Your task to perform on an android device: Search for "dell xps" on walmart, select the first entry, add it to the cart, then select checkout. Image 0: 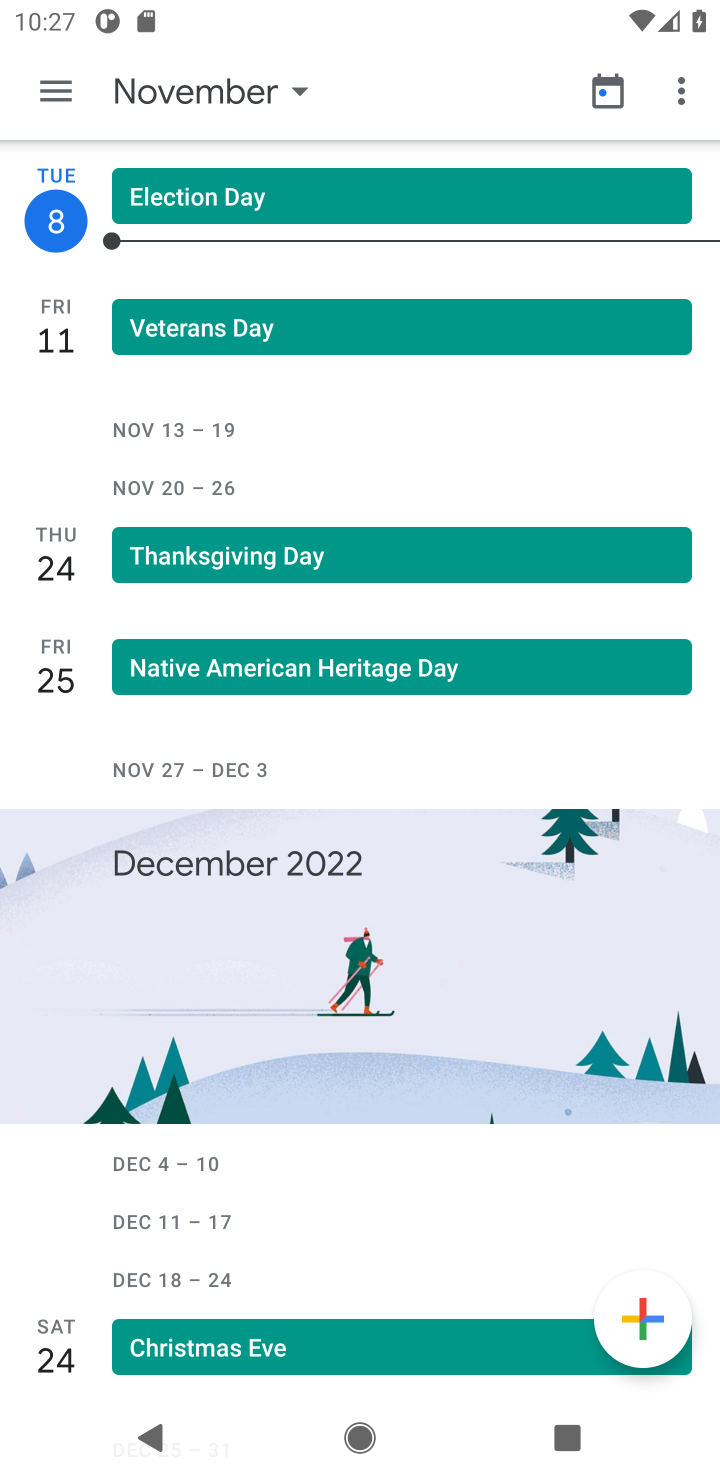
Step 0: press home button
Your task to perform on an android device: Search for "dell xps" on walmart, select the first entry, add it to the cart, then select checkout. Image 1: 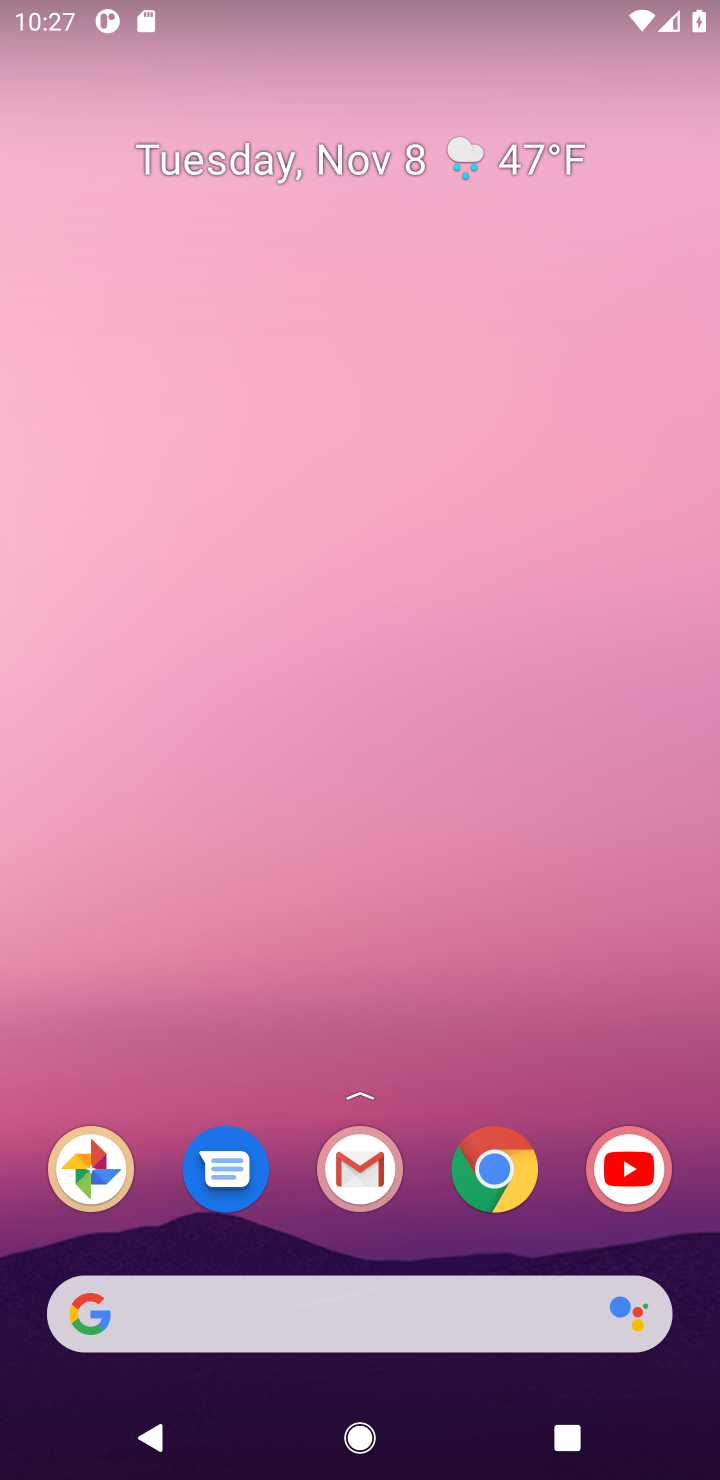
Step 1: click (502, 1172)
Your task to perform on an android device: Search for "dell xps" on walmart, select the first entry, add it to the cart, then select checkout. Image 2: 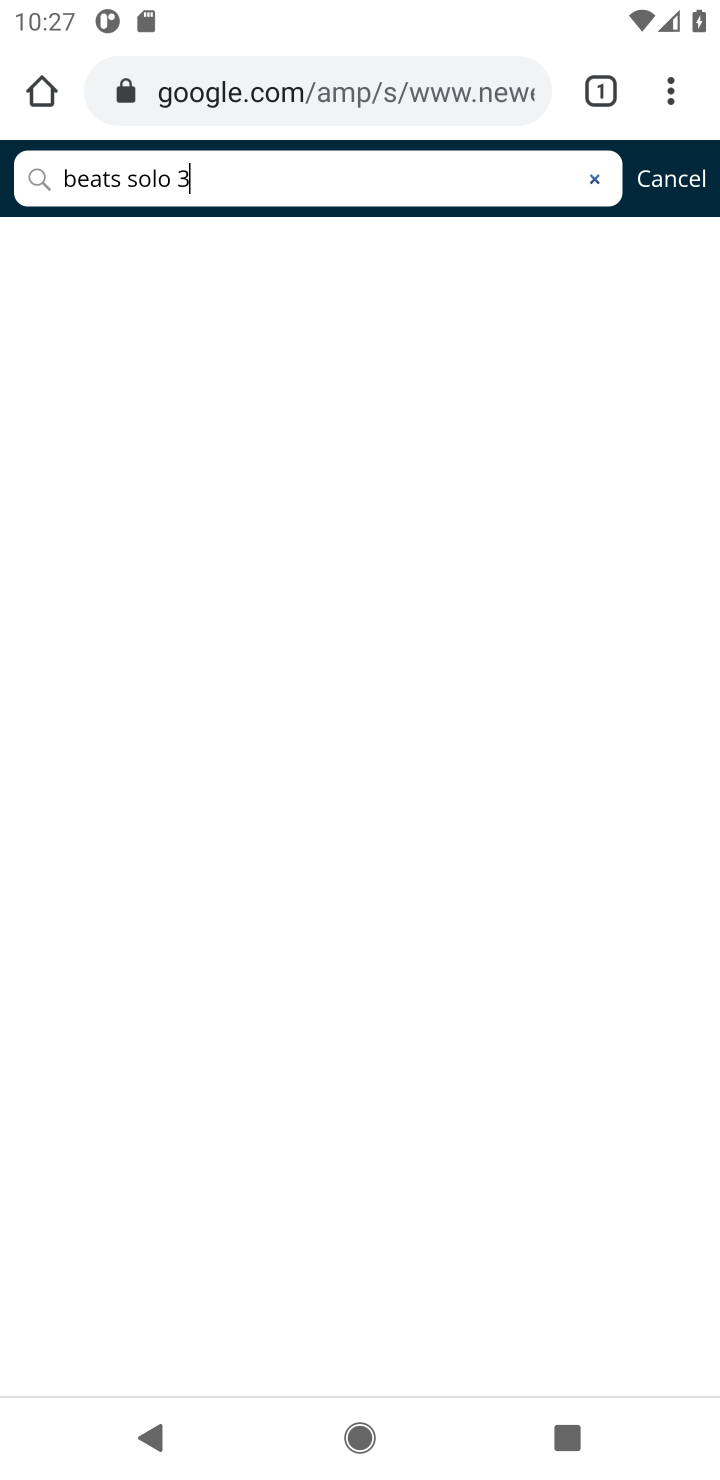
Step 2: click (388, 94)
Your task to perform on an android device: Search for "dell xps" on walmart, select the first entry, add it to the cart, then select checkout. Image 3: 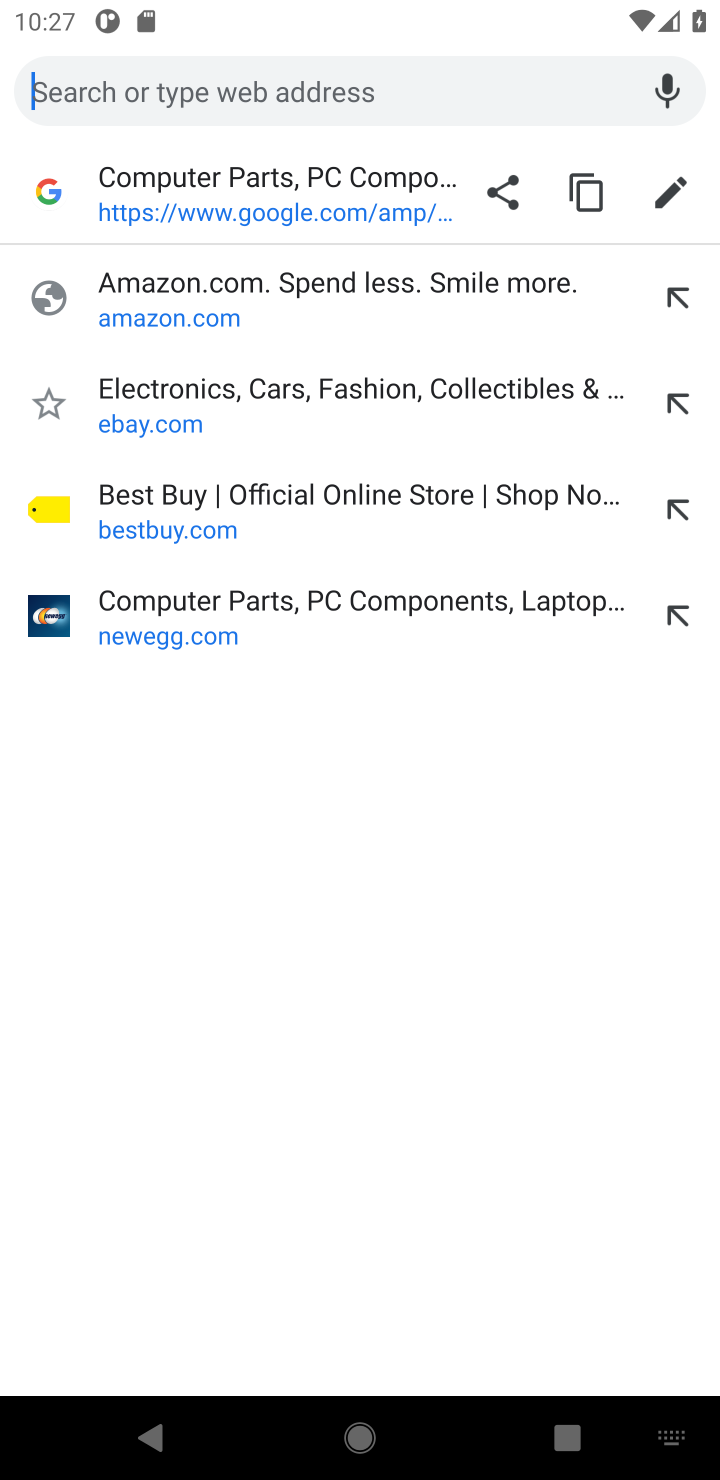
Step 3: type "walmart"
Your task to perform on an android device: Search for "dell xps" on walmart, select the first entry, add it to the cart, then select checkout. Image 4: 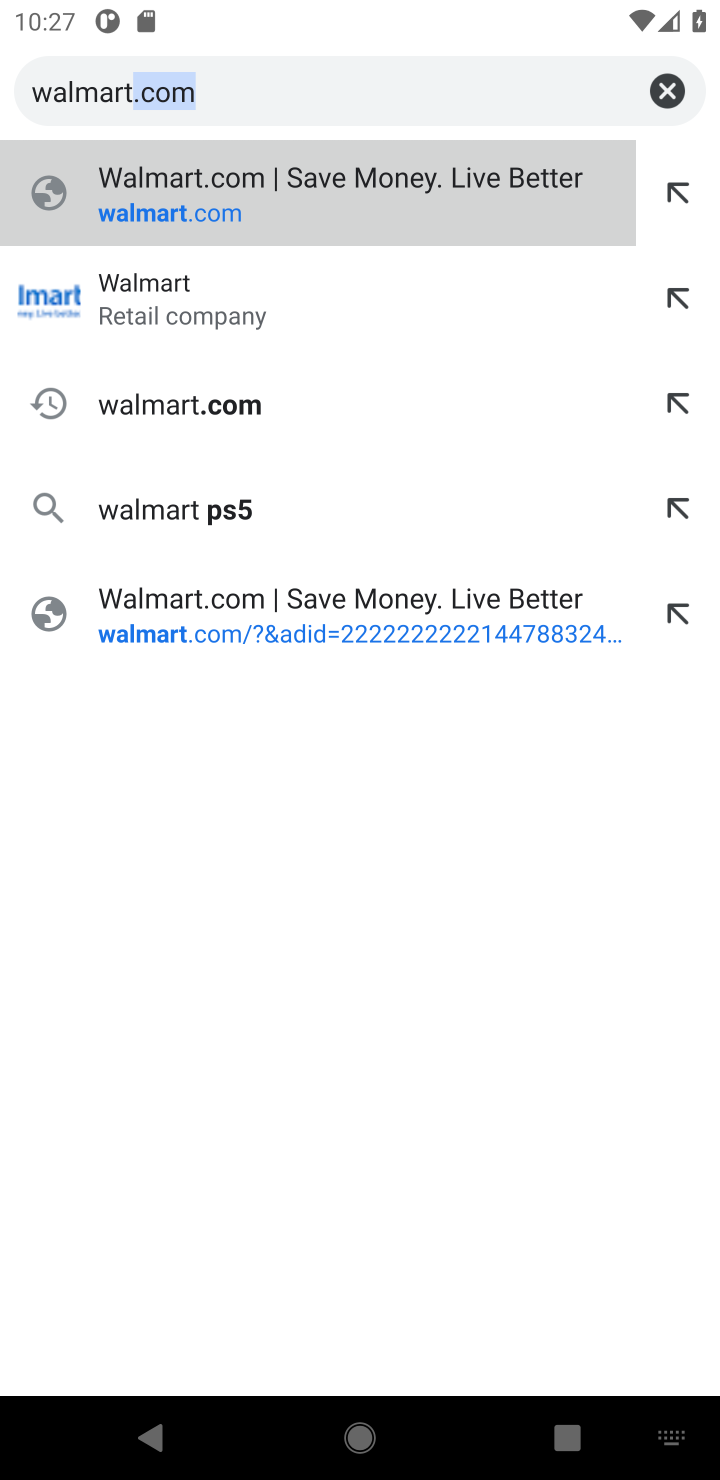
Step 4: press enter
Your task to perform on an android device: Search for "dell xps" on walmart, select the first entry, add it to the cart, then select checkout. Image 5: 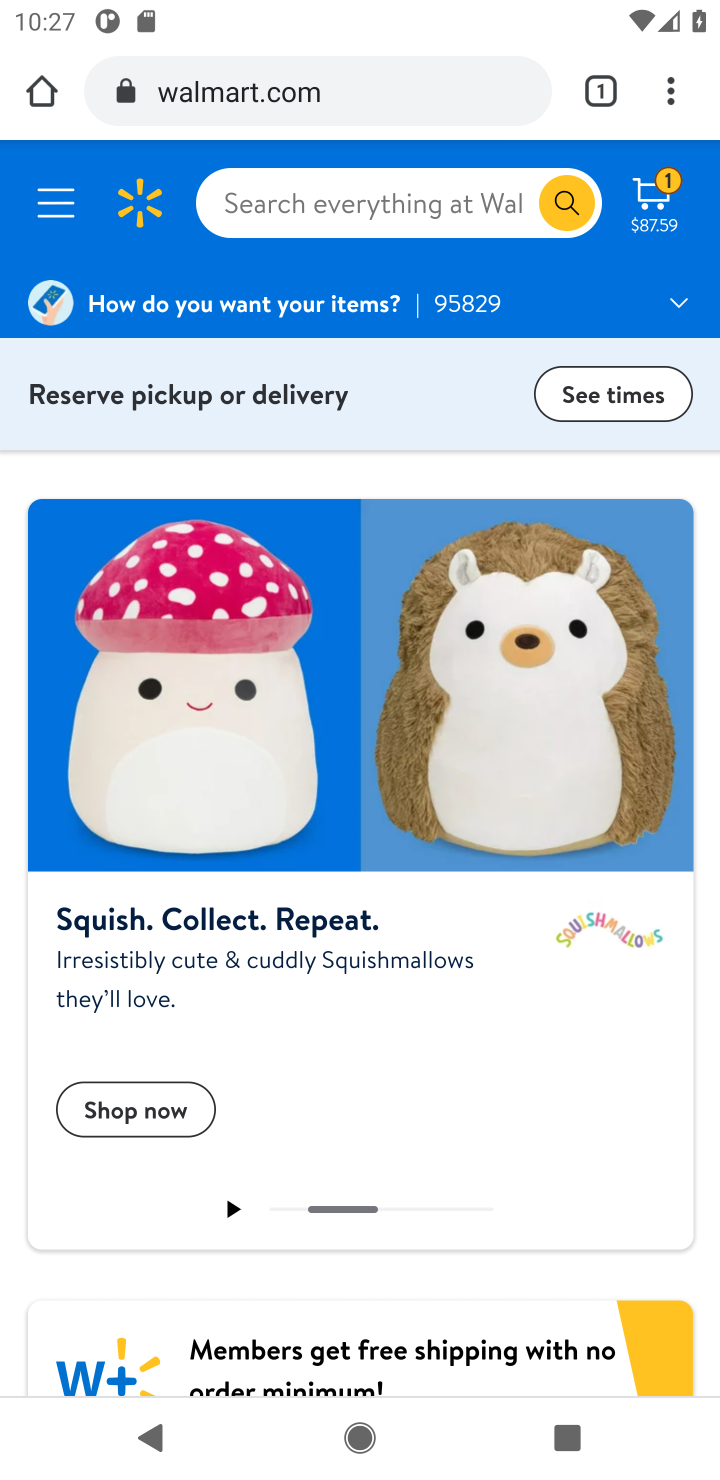
Step 5: click (410, 192)
Your task to perform on an android device: Search for "dell xps" on walmart, select the first entry, add it to the cart, then select checkout. Image 6: 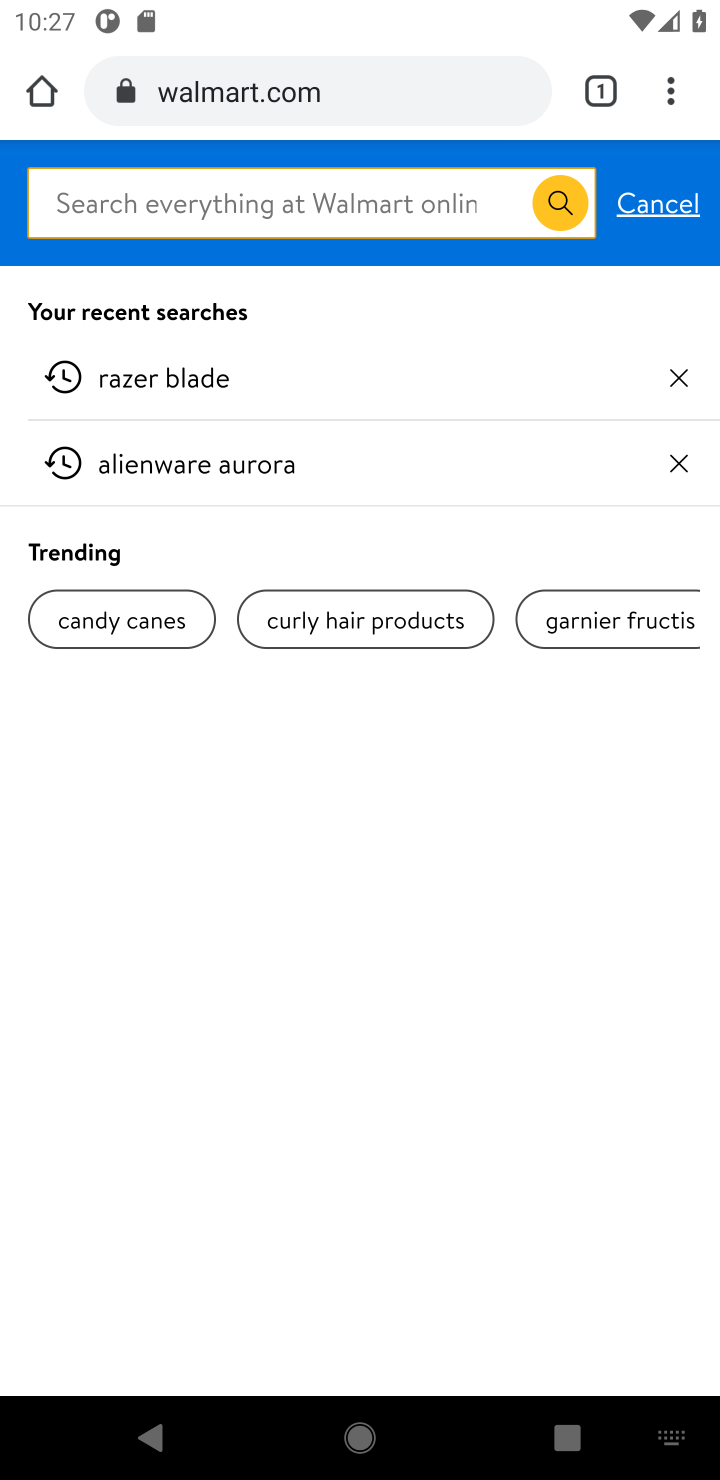
Step 6: press enter
Your task to perform on an android device: Search for "dell xps" on walmart, select the first entry, add it to the cart, then select checkout. Image 7: 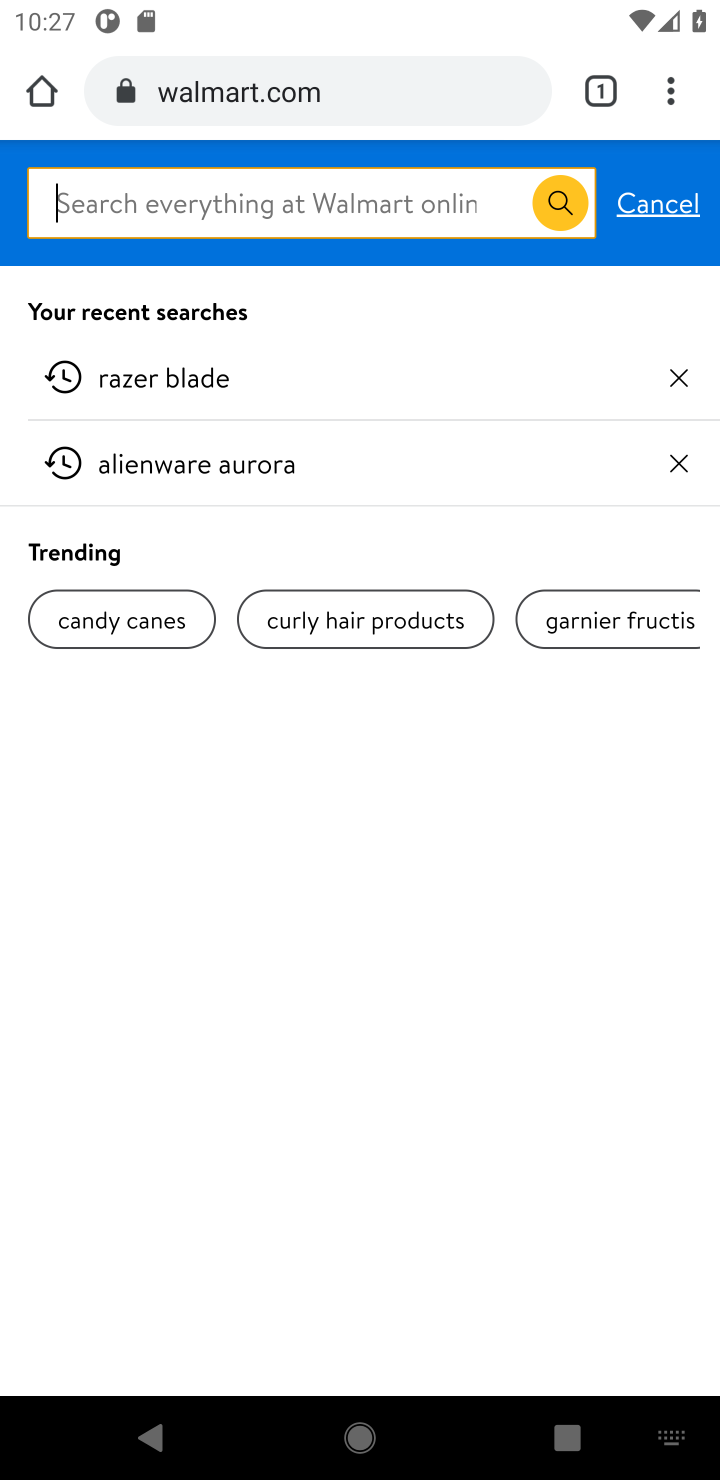
Step 7: type "dell xps"
Your task to perform on an android device: Search for "dell xps" on walmart, select the first entry, add it to the cart, then select checkout. Image 8: 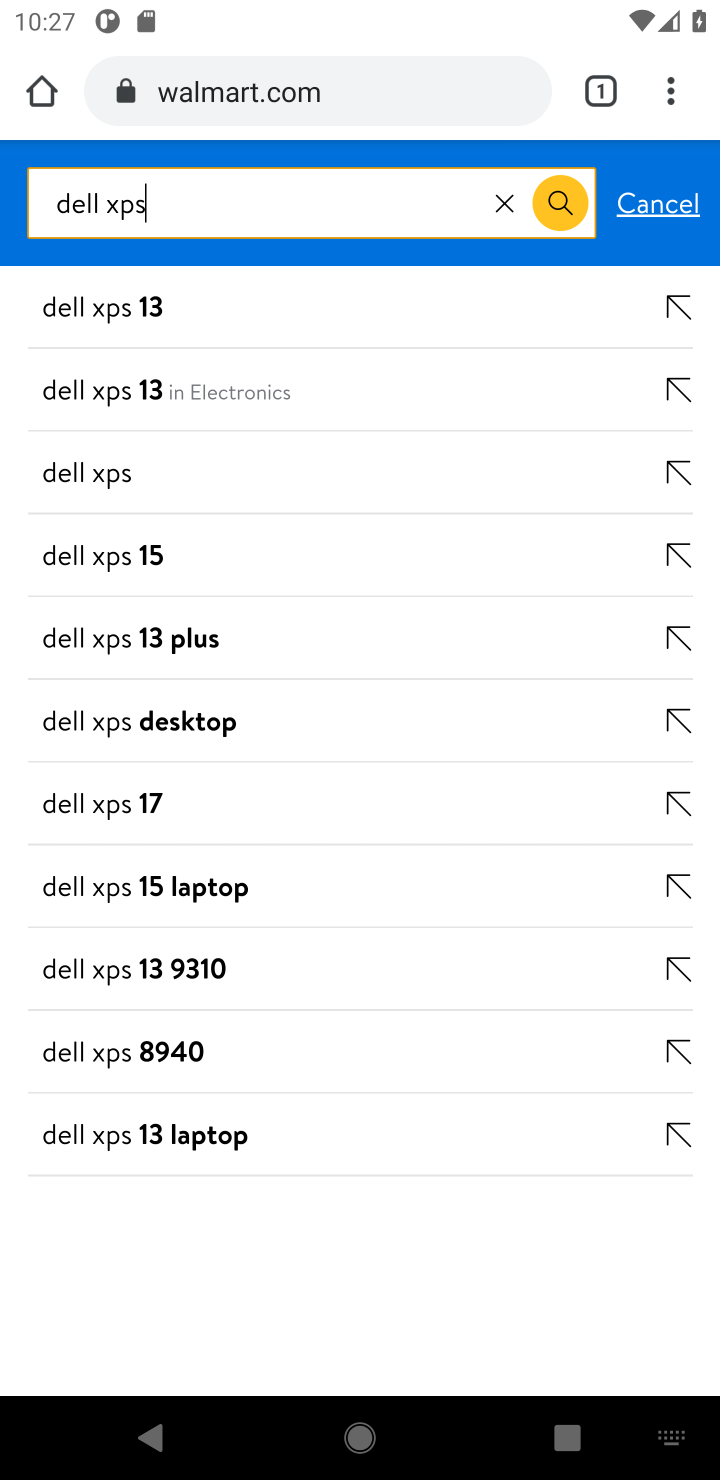
Step 8: click (95, 458)
Your task to perform on an android device: Search for "dell xps" on walmart, select the first entry, add it to the cart, then select checkout. Image 9: 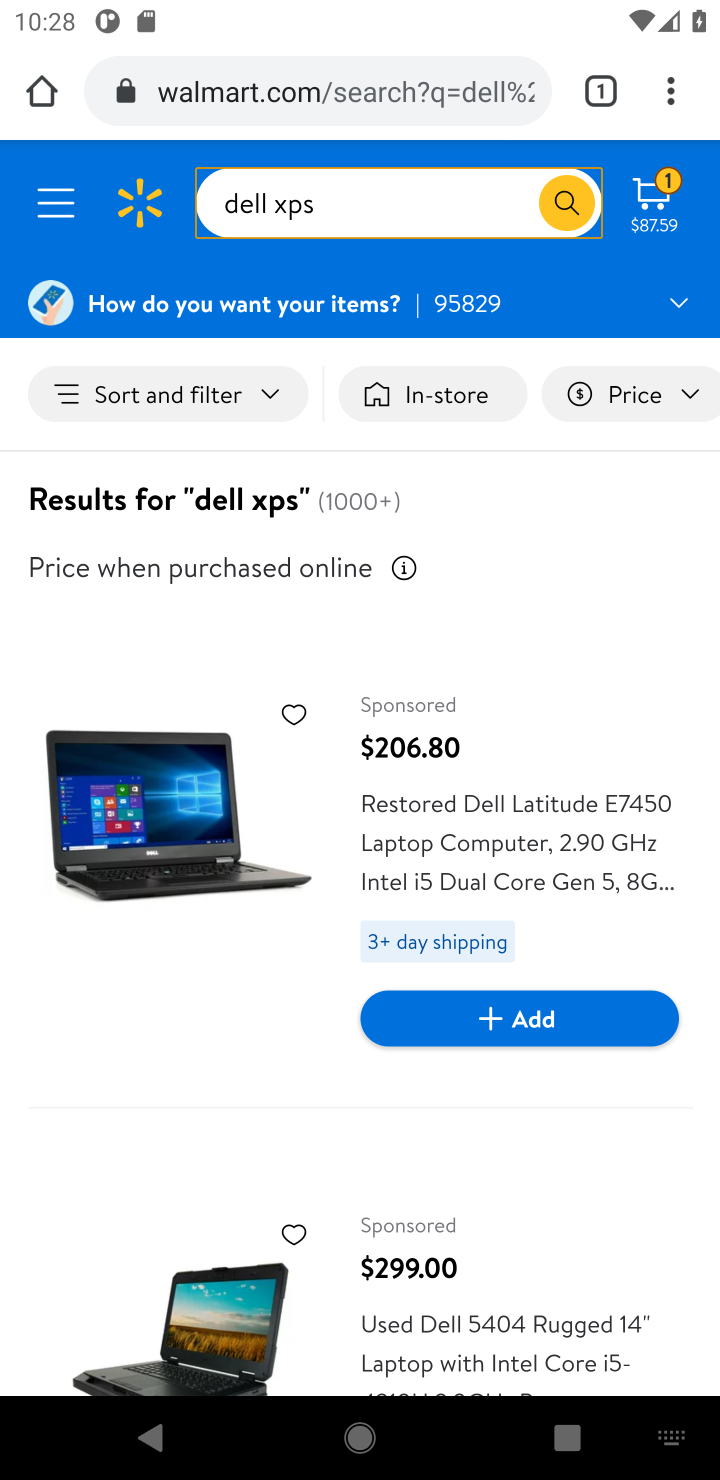
Step 9: drag from (588, 1177) to (595, 661)
Your task to perform on an android device: Search for "dell xps" on walmart, select the first entry, add it to the cart, then select checkout. Image 10: 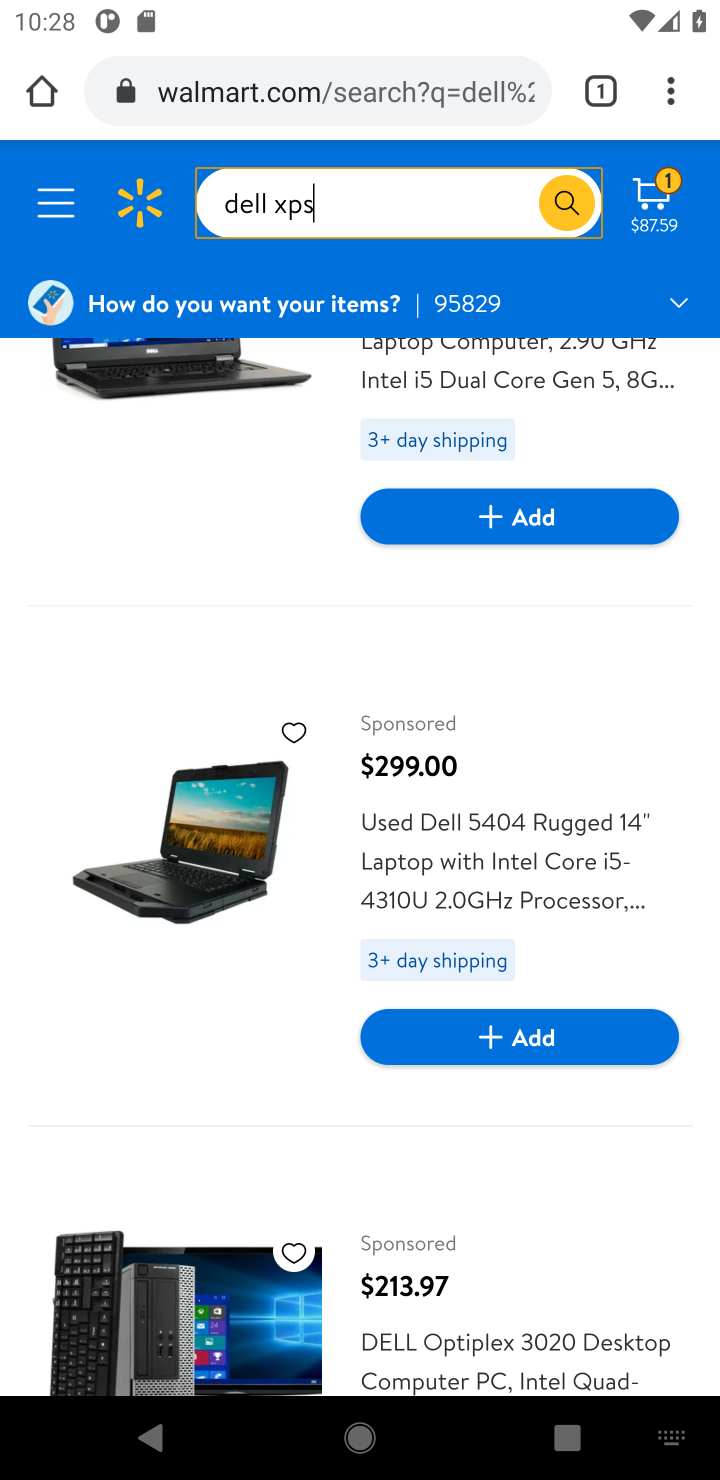
Step 10: drag from (617, 1226) to (548, 570)
Your task to perform on an android device: Search for "dell xps" on walmart, select the first entry, add it to the cart, then select checkout. Image 11: 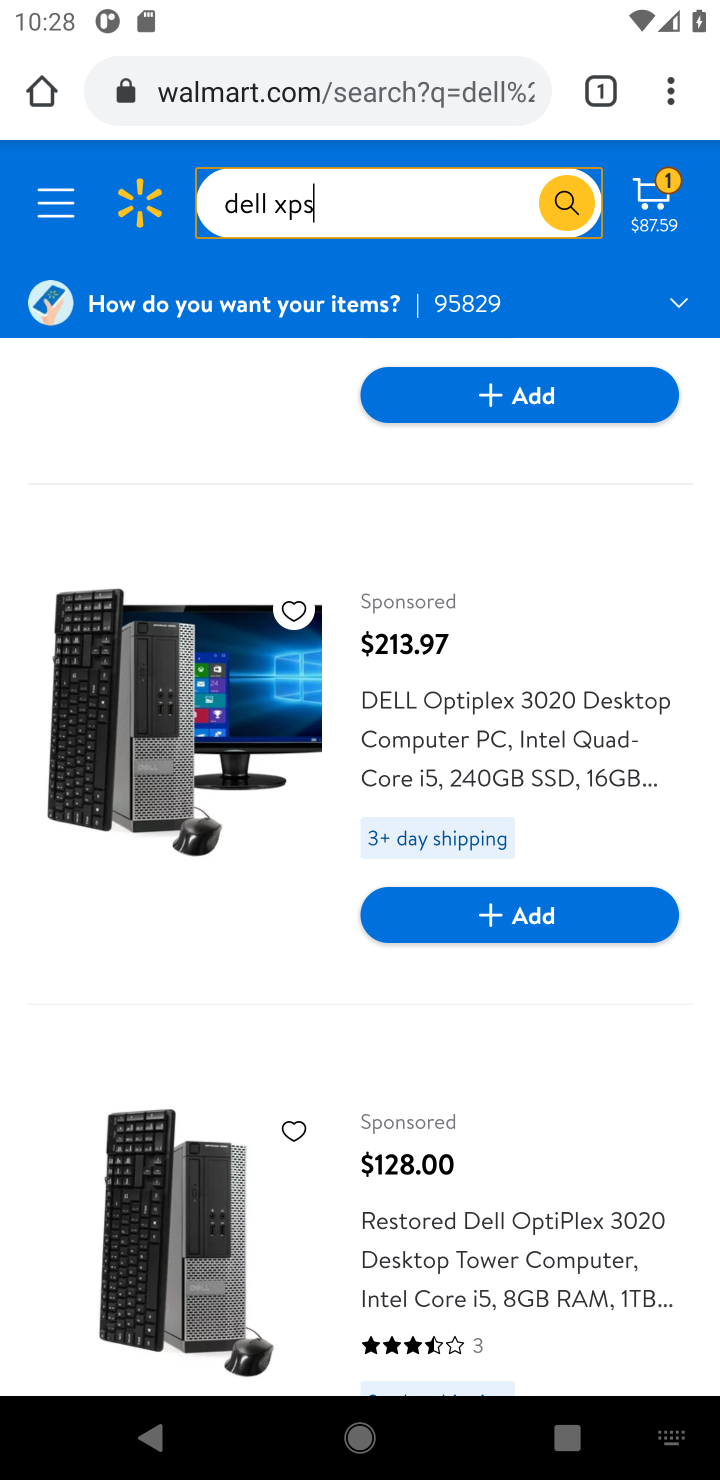
Step 11: drag from (580, 718) to (580, 501)
Your task to perform on an android device: Search for "dell xps" on walmart, select the first entry, add it to the cart, then select checkout. Image 12: 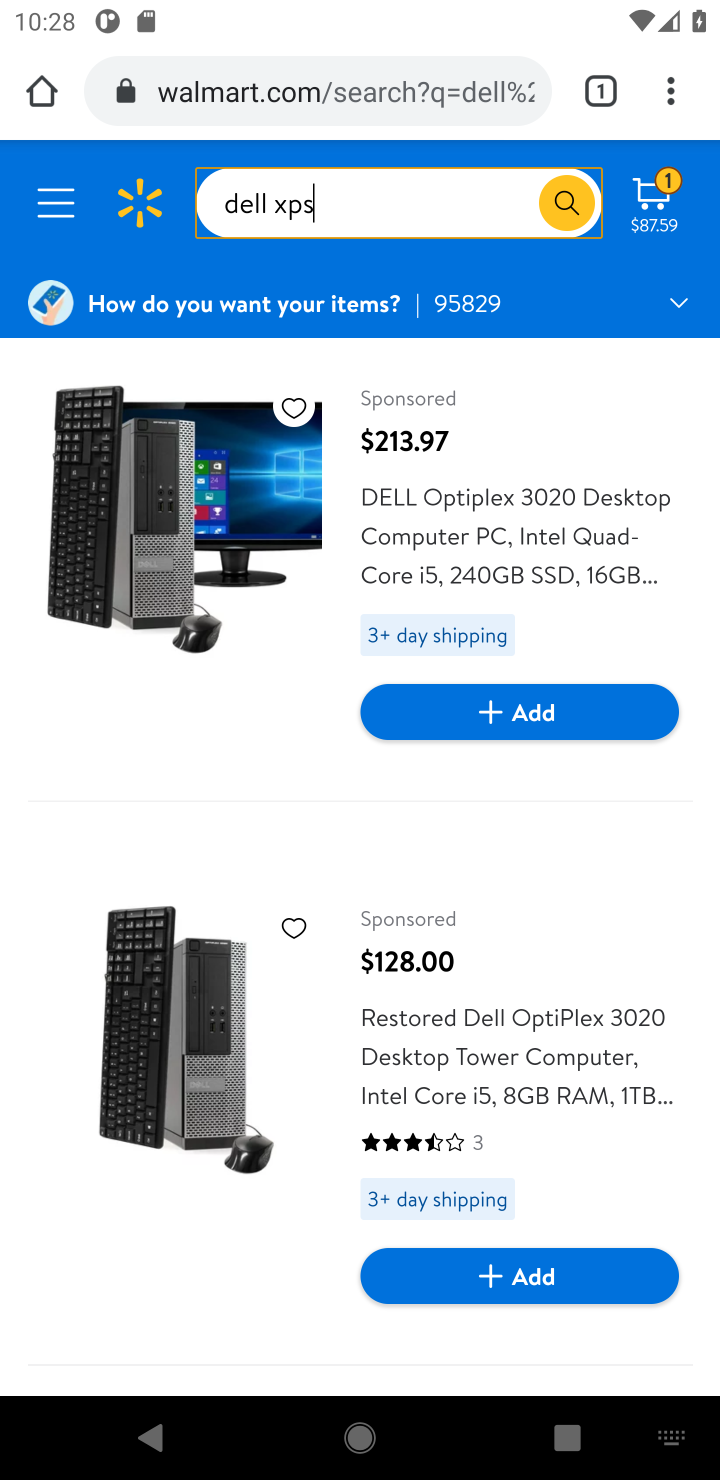
Step 12: drag from (598, 1146) to (592, 555)
Your task to perform on an android device: Search for "dell xps" on walmart, select the first entry, add it to the cart, then select checkout. Image 13: 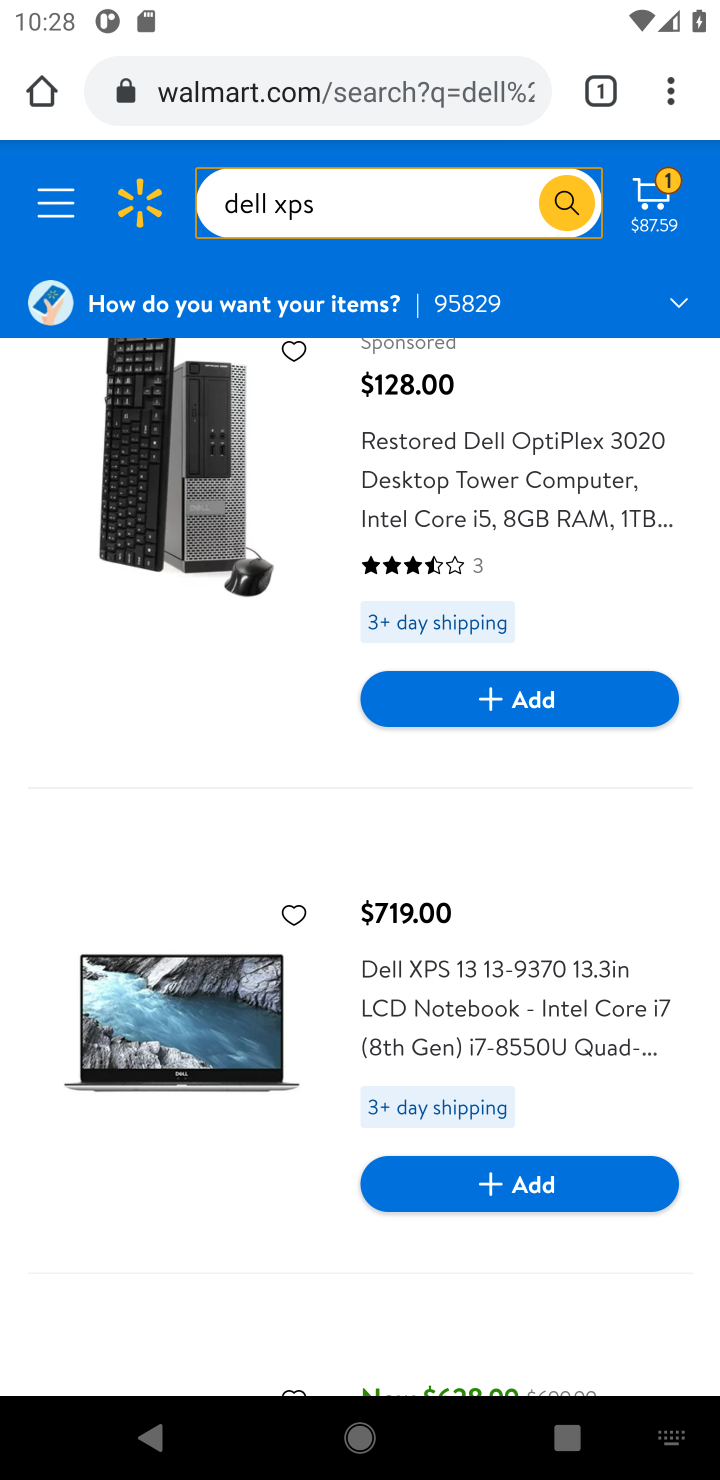
Step 13: click (170, 986)
Your task to perform on an android device: Search for "dell xps" on walmart, select the first entry, add it to the cart, then select checkout. Image 14: 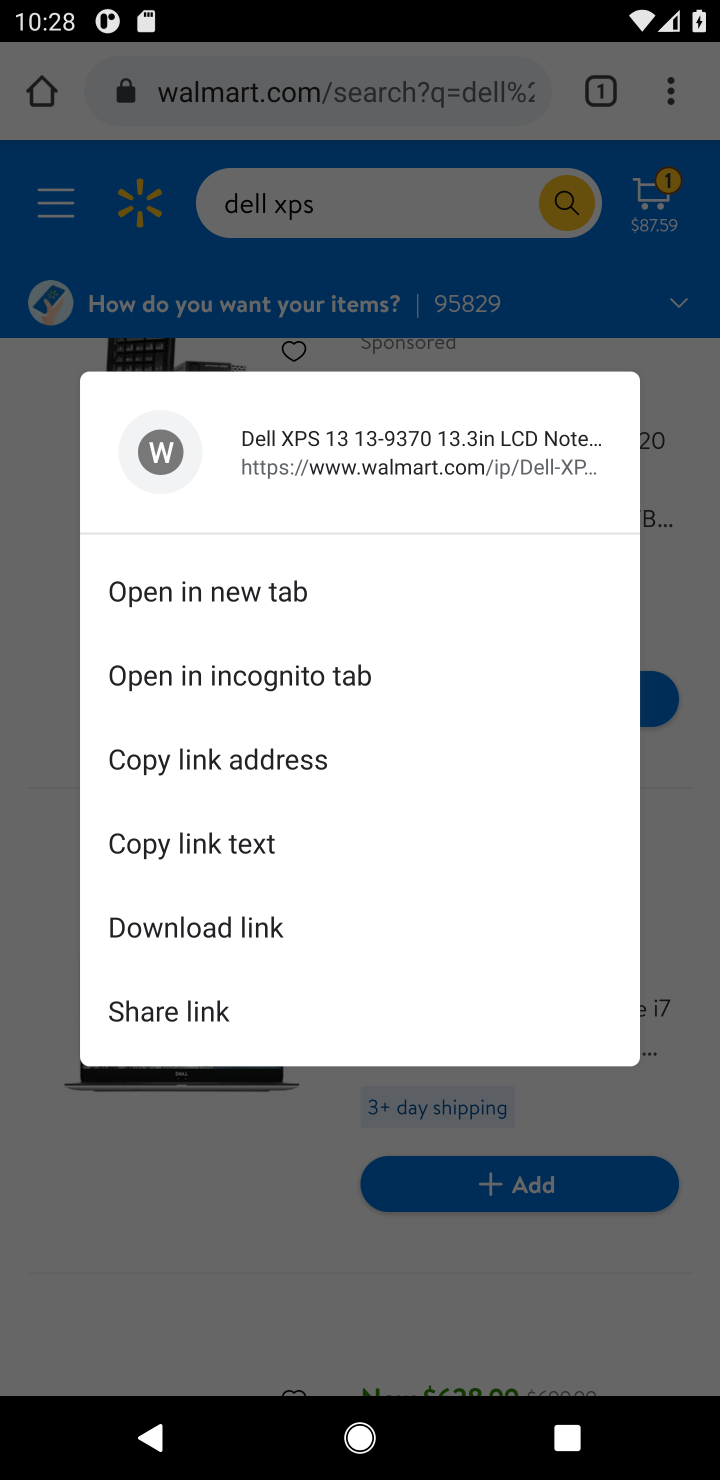
Step 14: click (223, 1147)
Your task to perform on an android device: Search for "dell xps" on walmart, select the first entry, add it to the cart, then select checkout. Image 15: 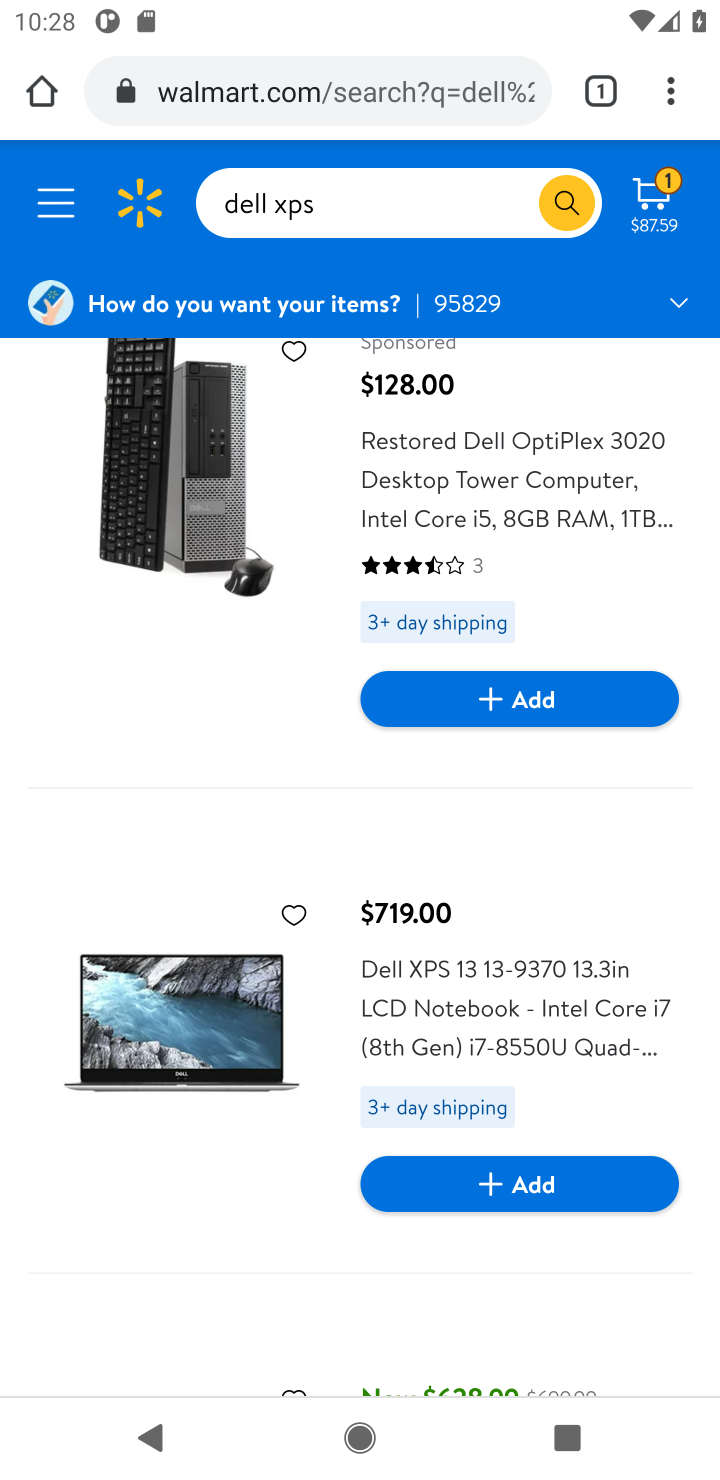
Step 15: click (203, 1001)
Your task to perform on an android device: Search for "dell xps" on walmart, select the first entry, add it to the cart, then select checkout. Image 16: 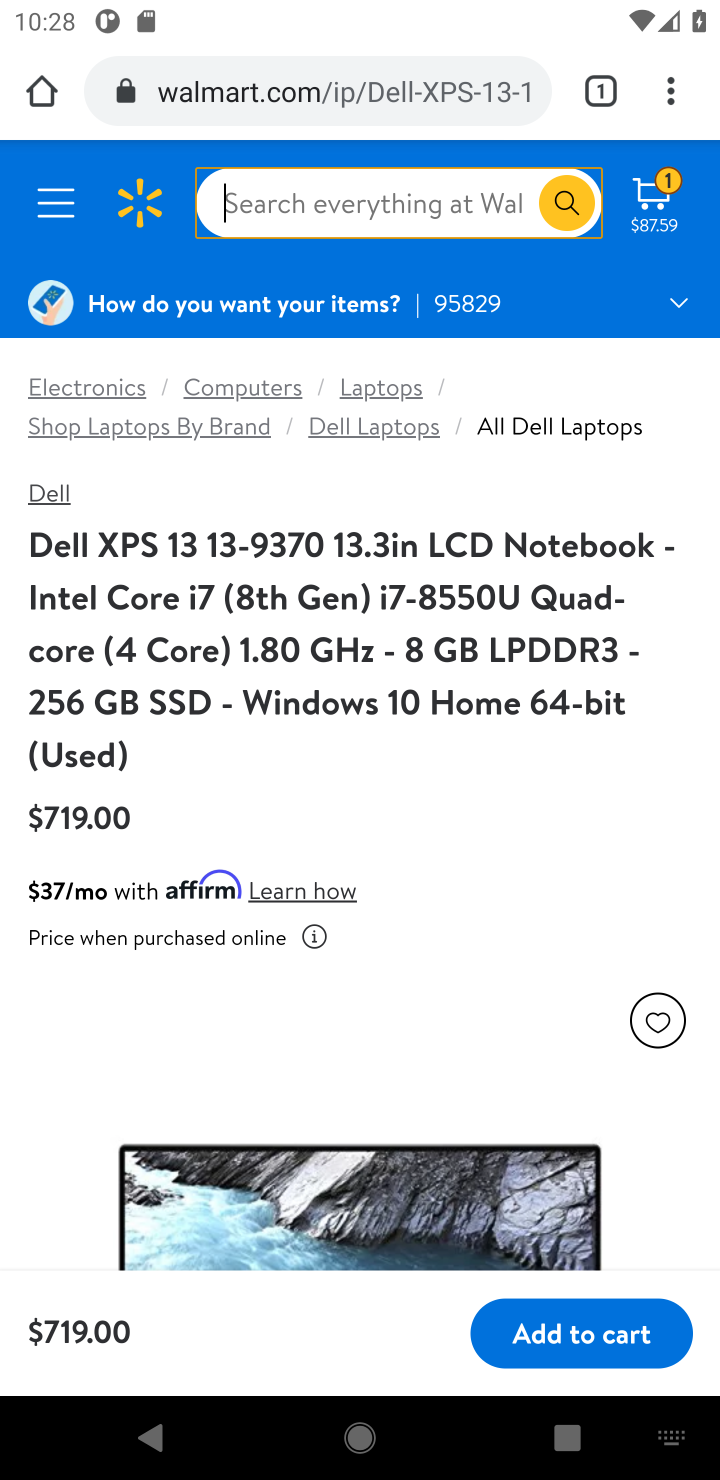
Step 16: click (567, 1323)
Your task to perform on an android device: Search for "dell xps" on walmart, select the first entry, add it to the cart, then select checkout. Image 17: 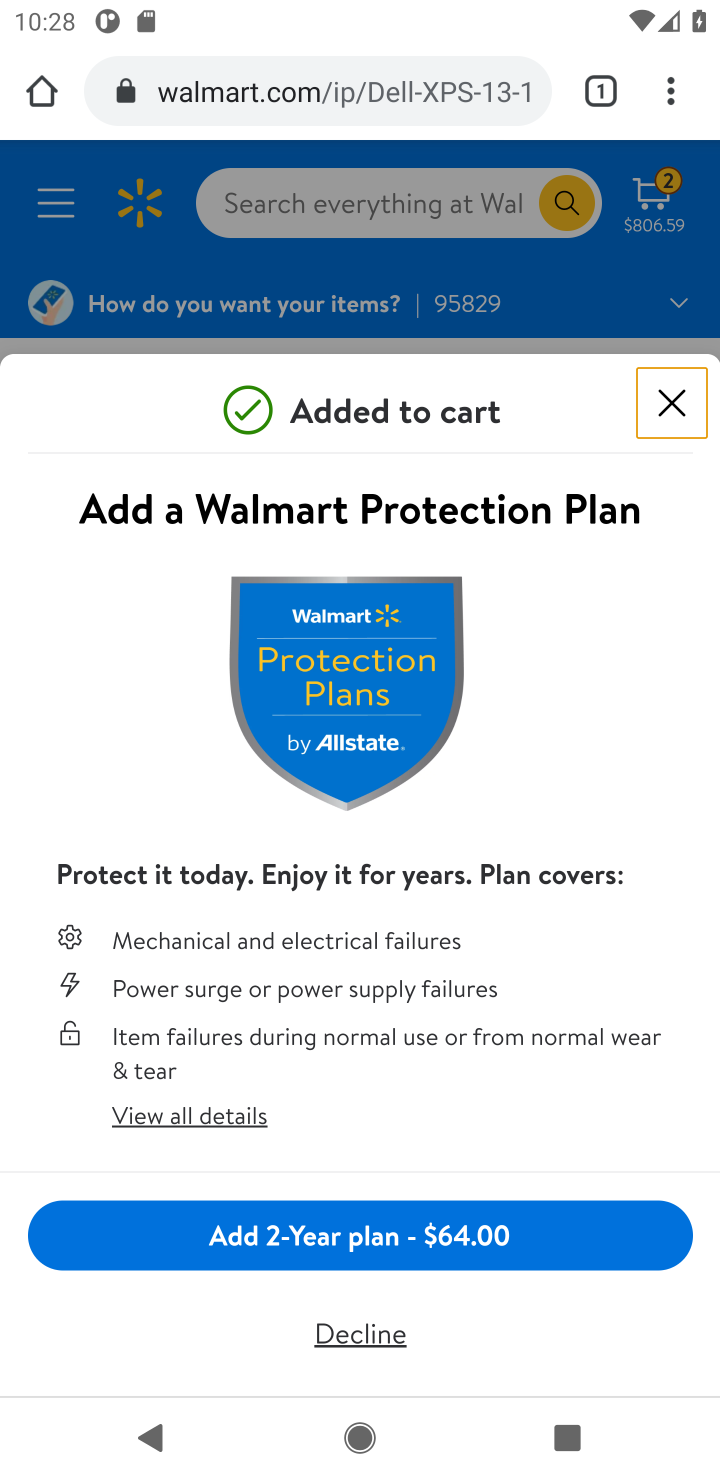
Step 17: click (686, 403)
Your task to perform on an android device: Search for "dell xps" on walmart, select the first entry, add it to the cart, then select checkout. Image 18: 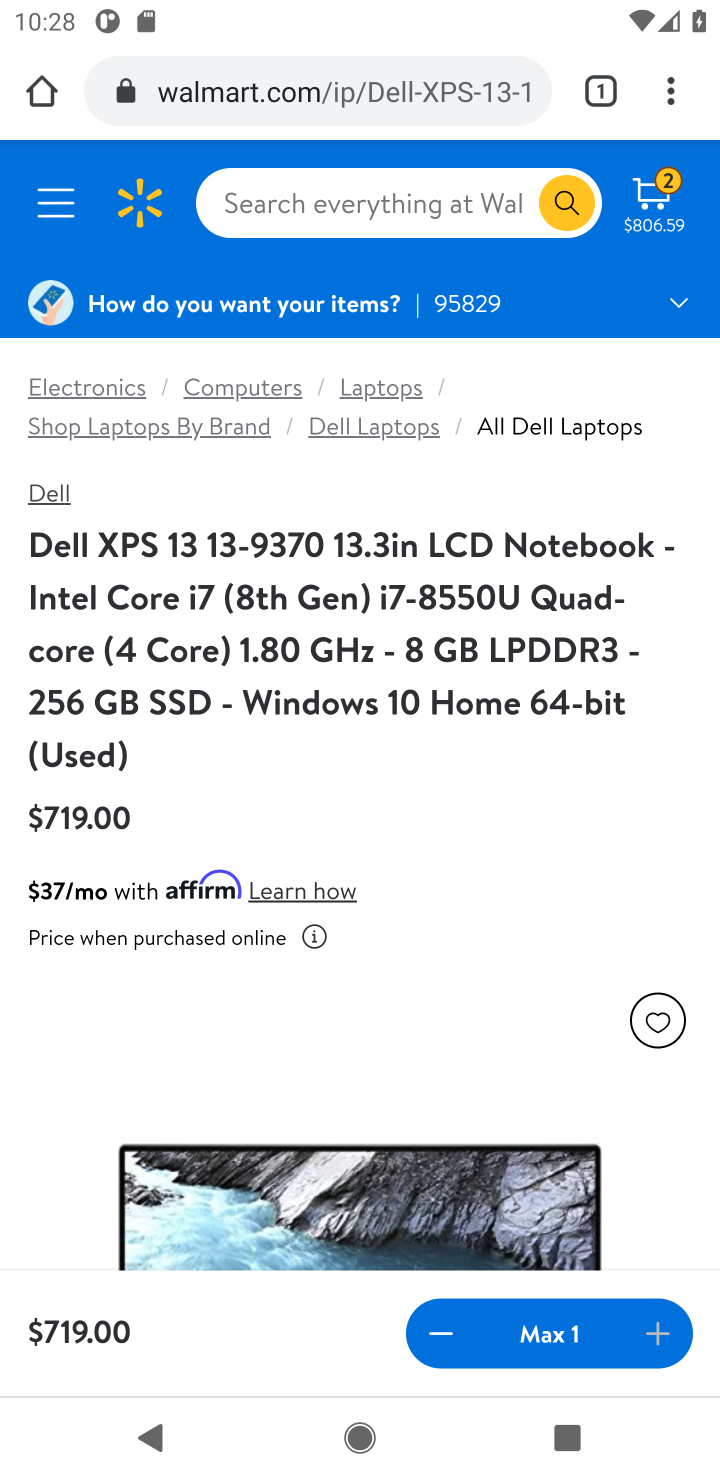
Step 18: click (662, 191)
Your task to perform on an android device: Search for "dell xps" on walmart, select the first entry, add it to the cart, then select checkout. Image 19: 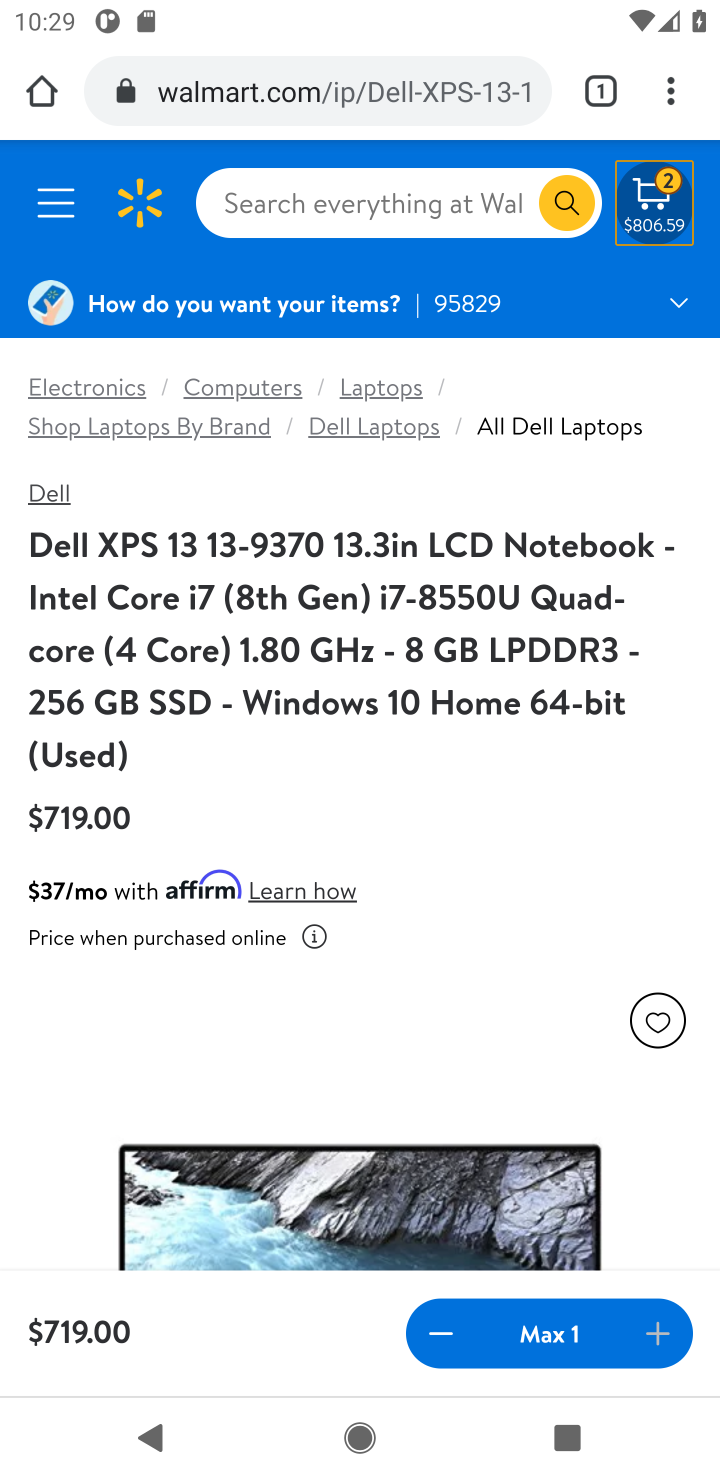
Step 19: click (662, 191)
Your task to perform on an android device: Search for "dell xps" on walmart, select the first entry, add it to the cart, then select checkout. Image 20: 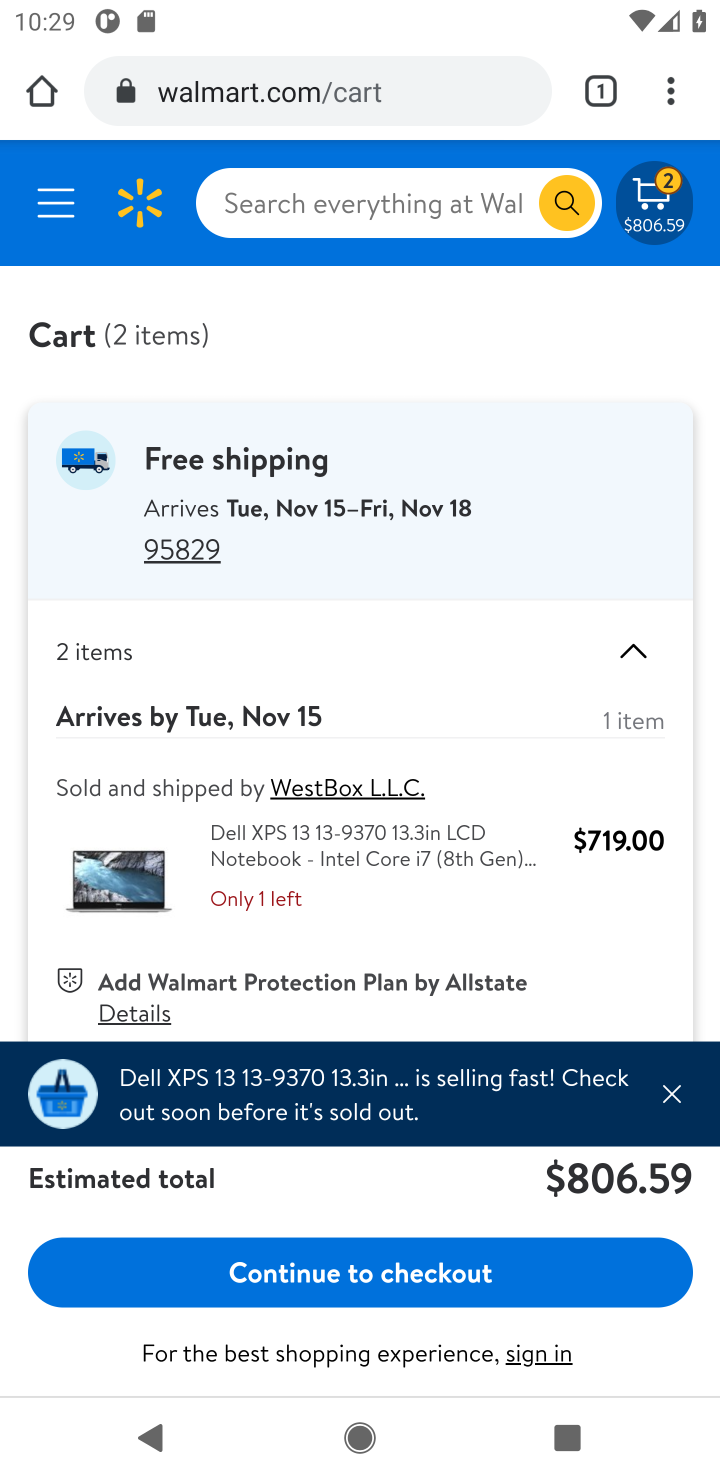
Step 20: drag from (504, 755) to (581, 252)
Your task to perform on an android device: Search for "dell xps" on walmart, select the first entry, add it to the cart, then select checkout. Image 21: 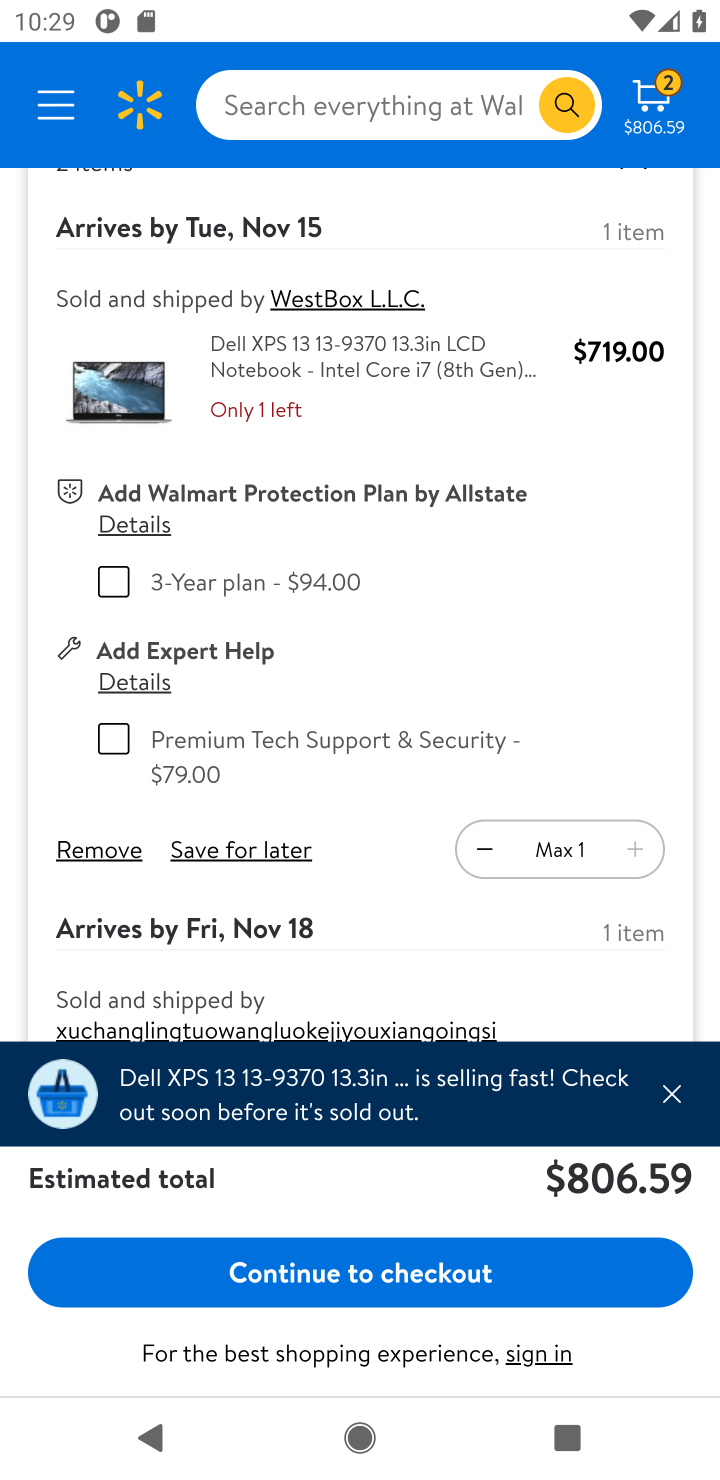
Step 21: click (112, 845)
Your task to perform on an android device: Search for "dell xps" on walmart, select the first entry, add it to the cart, then select checkout. Image 22: 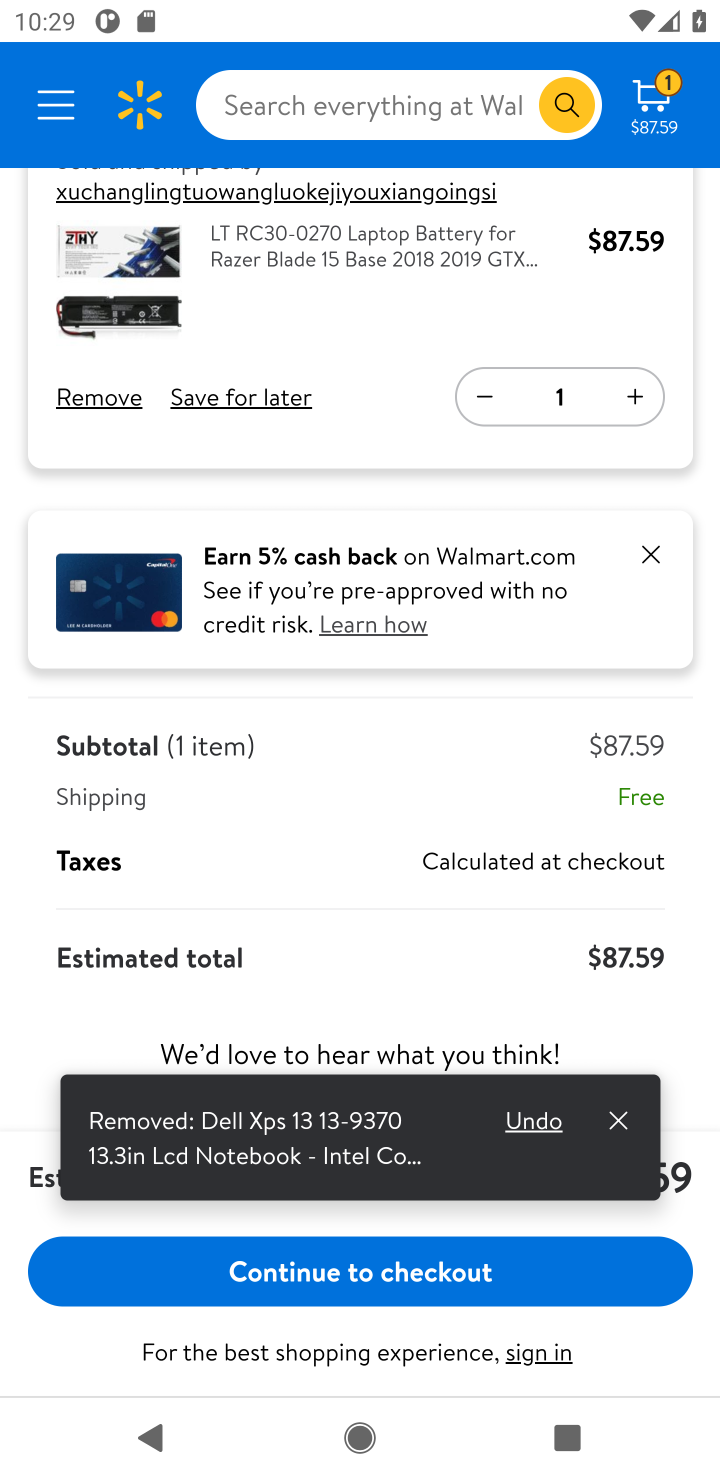
Step 22: drag from (356, 601) to (366, 1009)
Your task to perform on an android device: Search for "dell xps" on walmart, select the first entry, add it to the cart, then select checkout. Image 23: 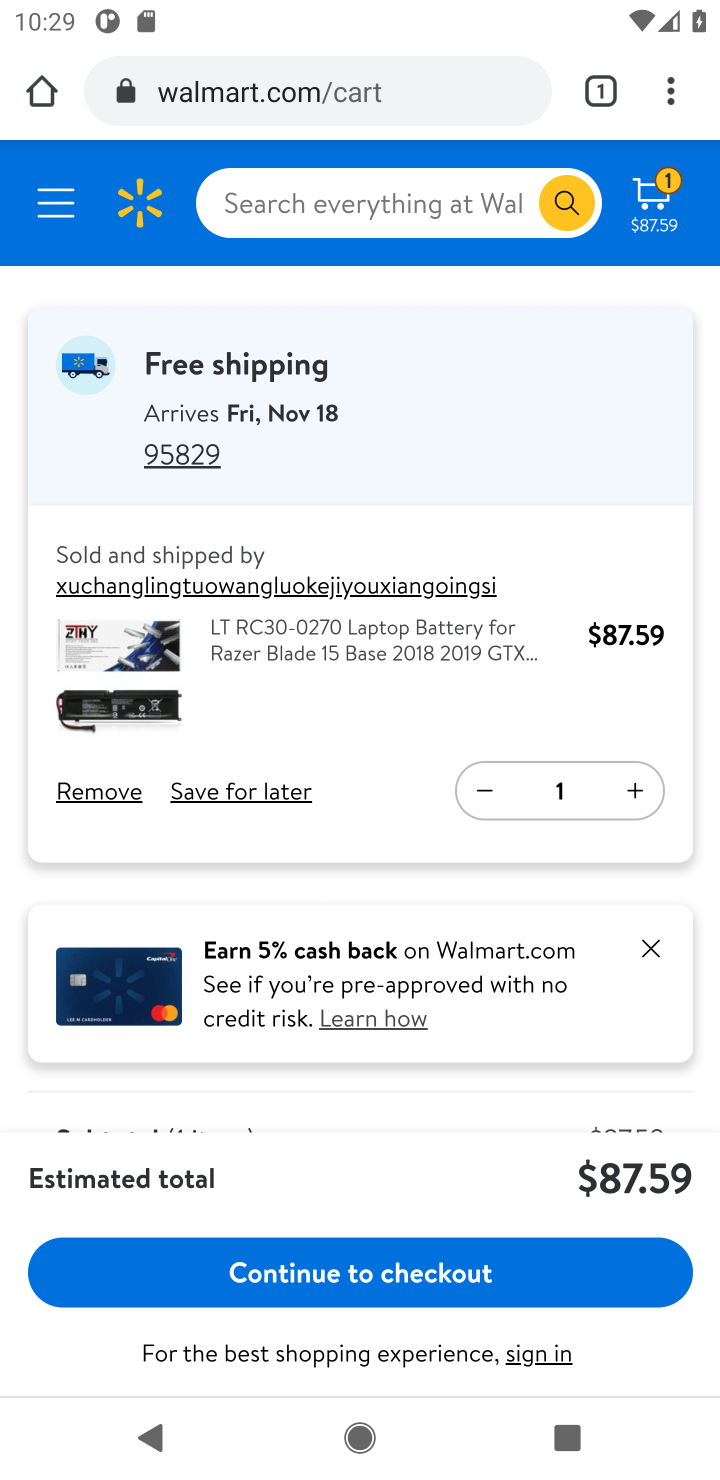
Step 23: click (422, 1268)
Your task to perform on an android device: Search for "dell xps" on walmart, select the first entry, add it to the cart, then select checkout. Image 24: 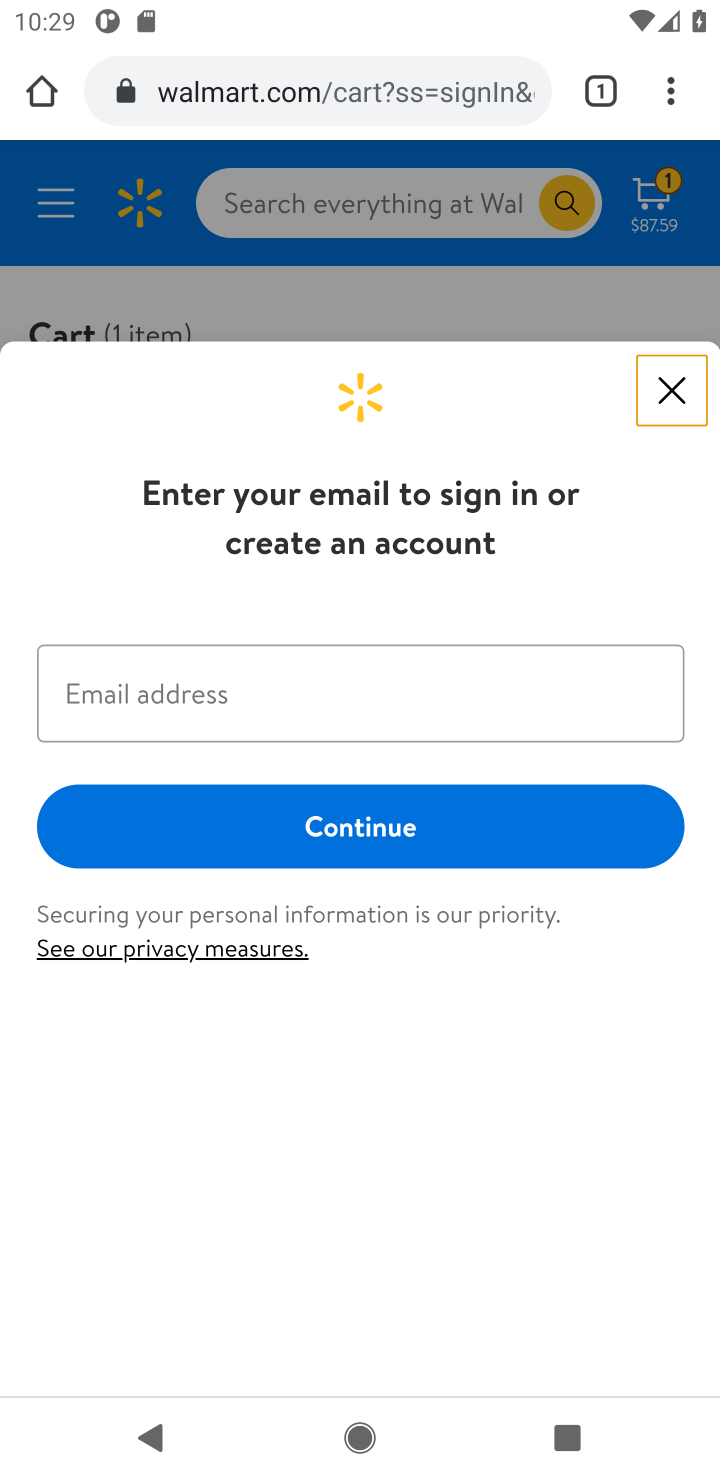
Step 24: task complete